Your task to perform on an android device: allow cookies in the chrome app Image 0: 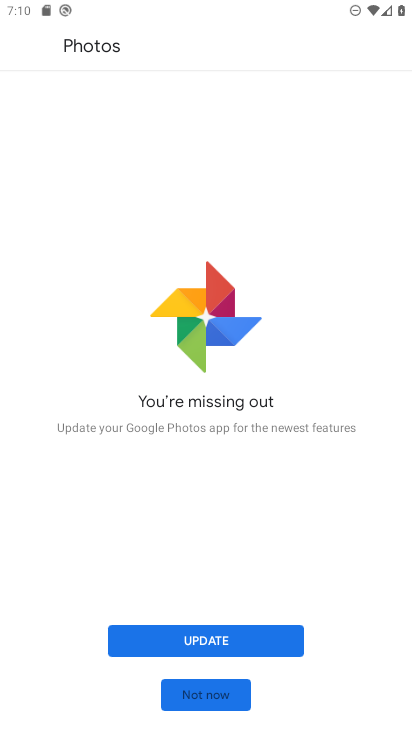
Step 0: press home button
Your task to perform on an android device: allow cookies in the chrome app Image 1: 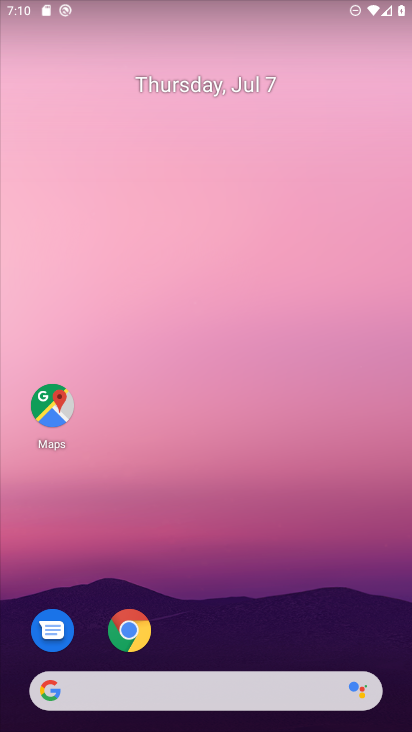
Step 1: click (130, 632)
Your task to perform on an android device: allow cookies in the chrome app Image 2: 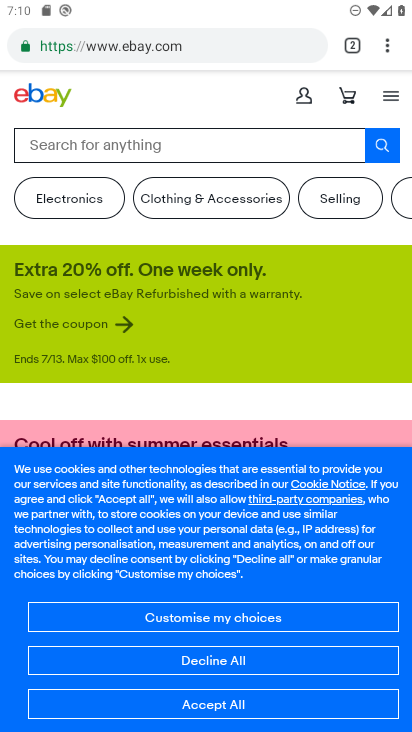
Step 2: click (387, 42)
Your task to perform on an android device: allow cookies in the chrome app Image 3: 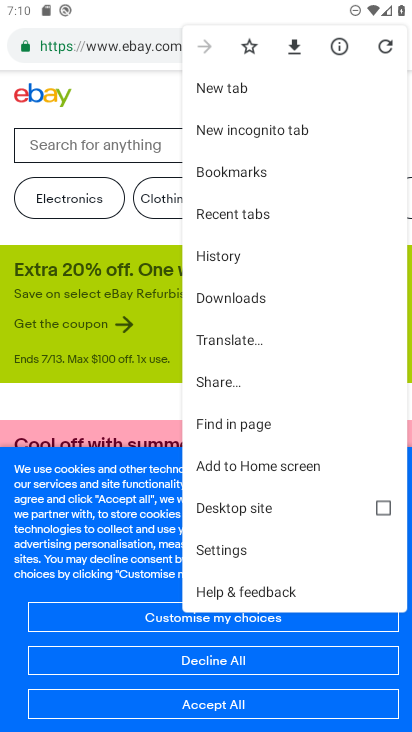
Step 3: click (233, 547)
Your task to perform on an android device: allow cookies in the chrome app Image 4: 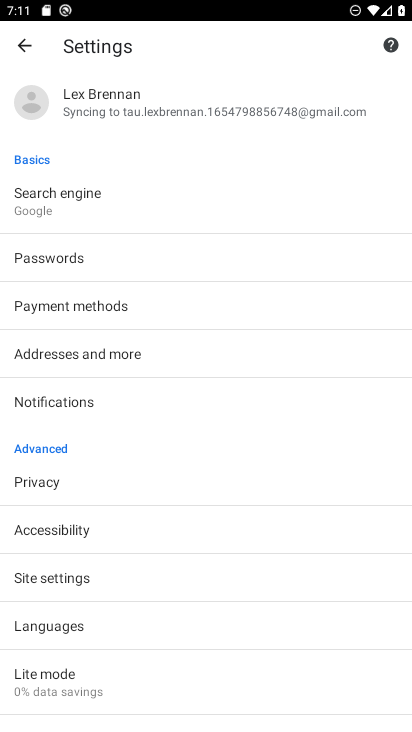
Step 4: click (63, 577)
Your task to perform on an android device: allow cookies in the chrome app Image 5: 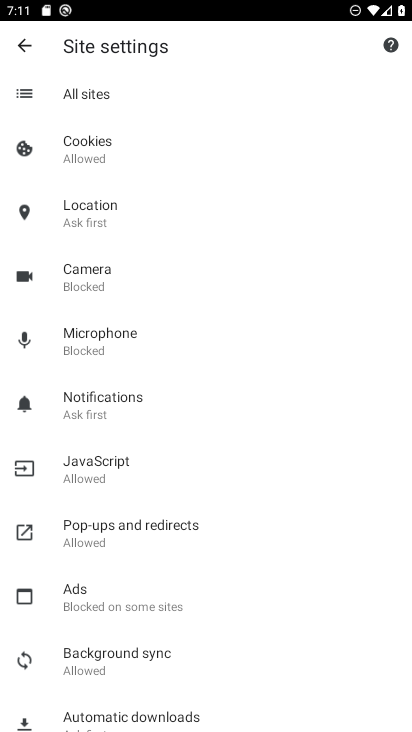
Step 5: click (79, 147)
Your task to perform on an android device: allow cookies in the chrome app Image 6: 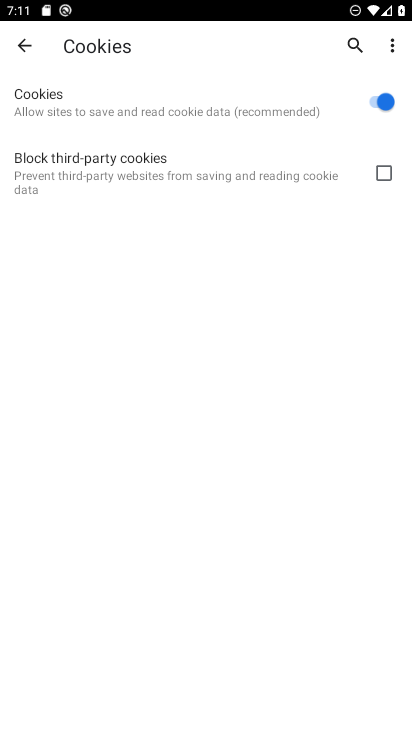
Step 6: task complete